Your task to perform on an android device: Show me popular games on the Play Store Image 0: 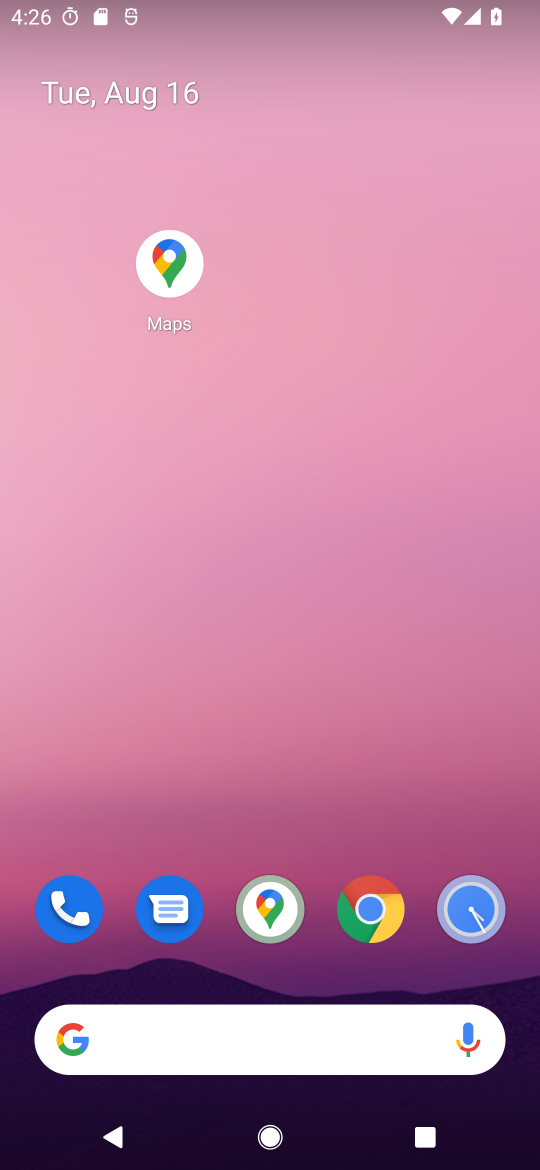
Step 0: drag from (239, 928) to (125, 235)
Your task to perform on an android device: Show me popular games on the Play Store Image 1: 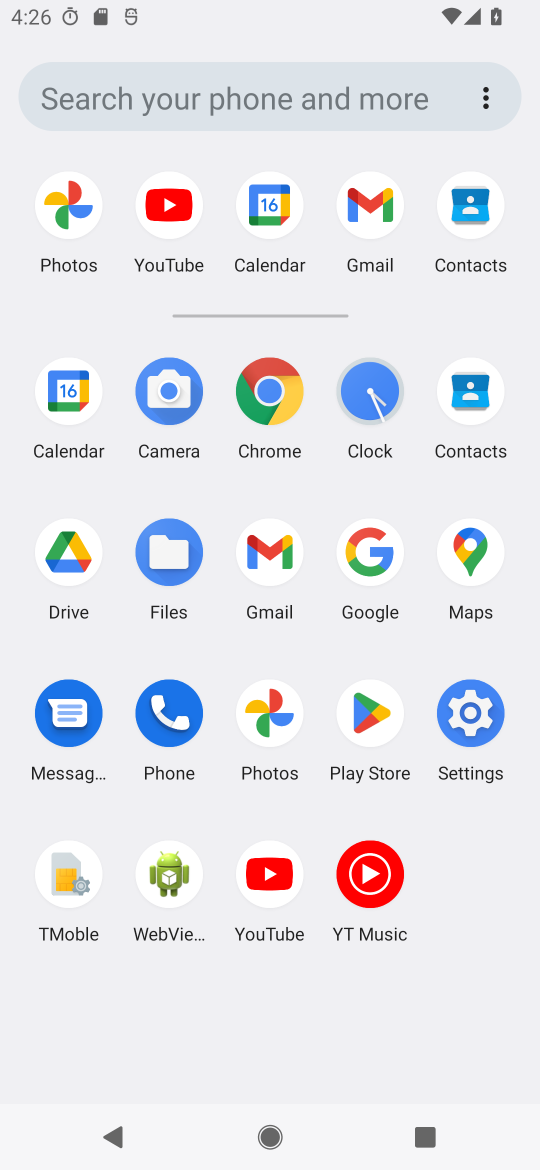
Step 1: click (371, 705)
Your task to perform on an android device: Show me popular games on the Play Store Image 2: 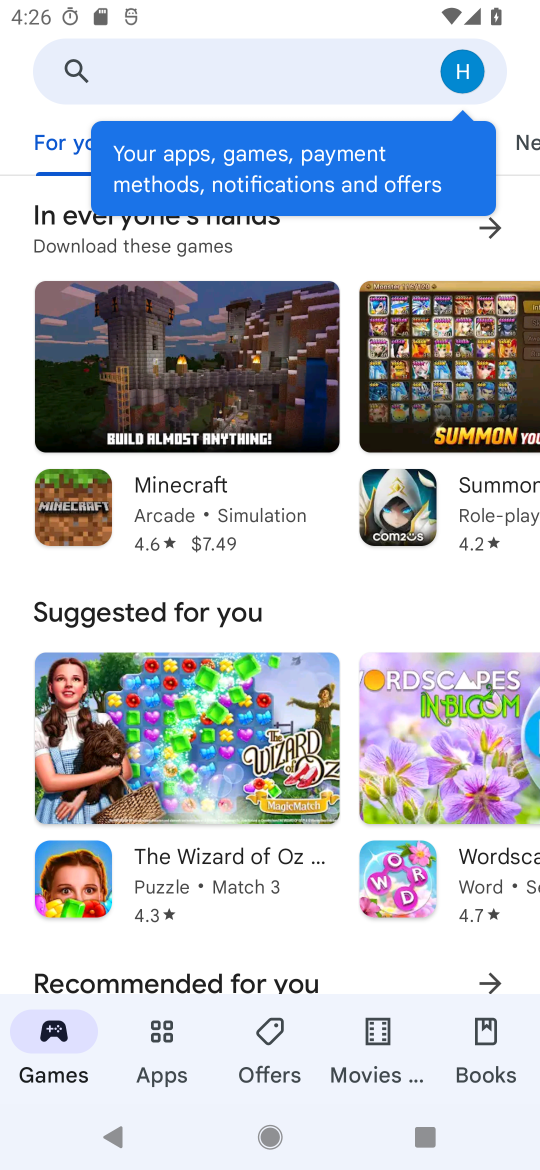
Step 2: task complete